Your task to perform on an android device: turn on location history Image 0: 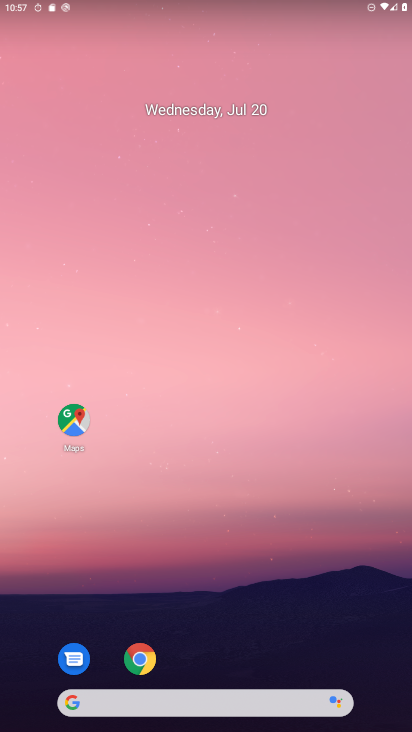
Step 0: drag from (262, 614) to (238, 102)
Your task to perform on an android device: turn on location history Image 1: 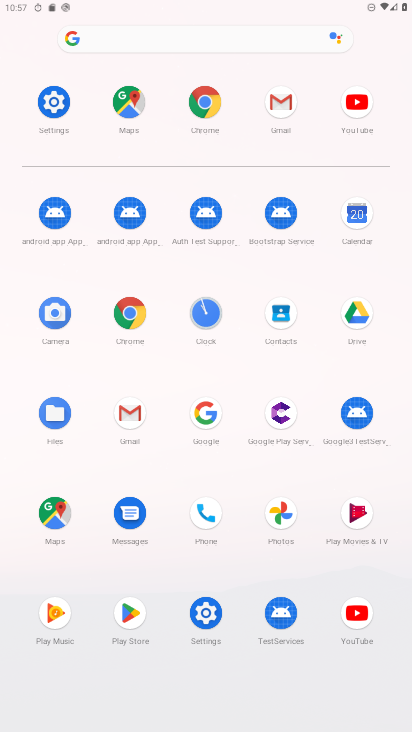
Step 1: click (54, 93)
Your task to perform on an android device: turn on location history Image 2: 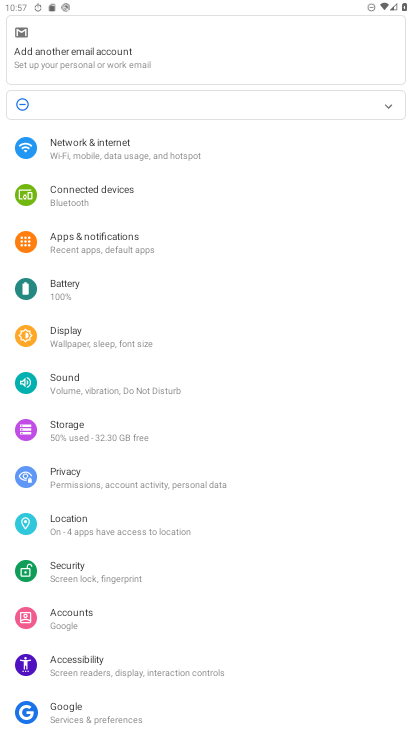
Step 2: click (87, 518)
Your task to perform on an android device: turn on location history Image 3: 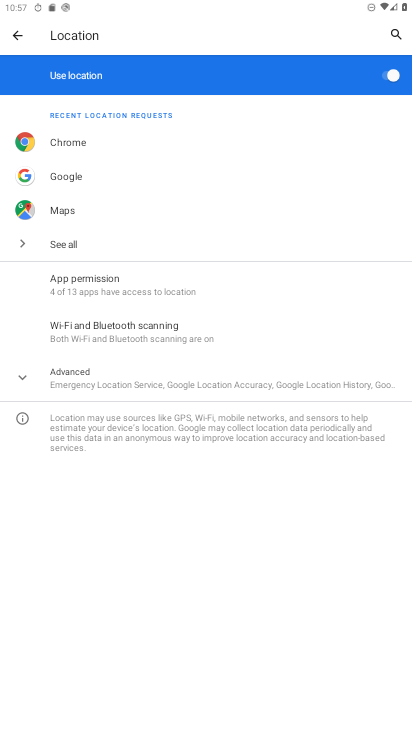
Step 3: click (126, 374)
Your task to perform on an android device: turn on location history Image 4: 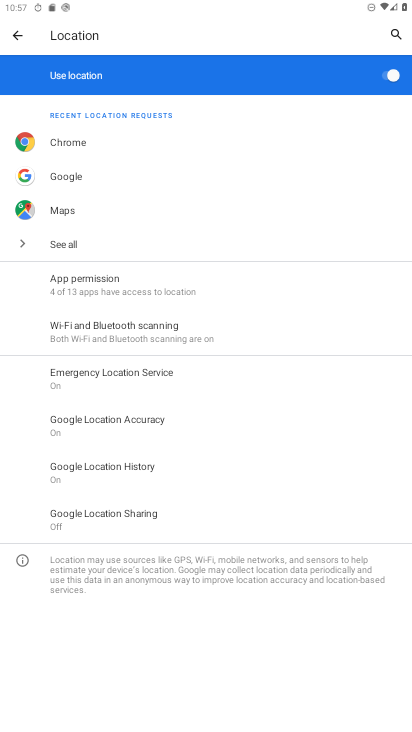
Step 4: click (137, 477)
Your task to perform on an android device: turn on location history Image 5: 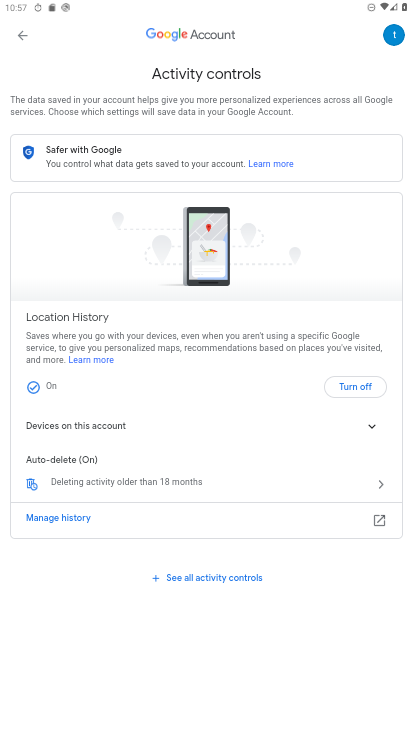
Step 5: task complete